Your task to perform on an android device: turn vacation reply on in the gmail app Image 0: 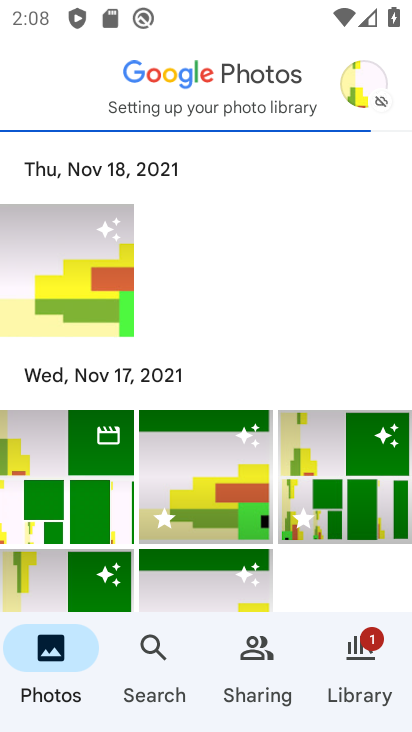
Step 0: press home button
Your task to perform on an android device: turn vacation reply on in the gmail app Image 1: 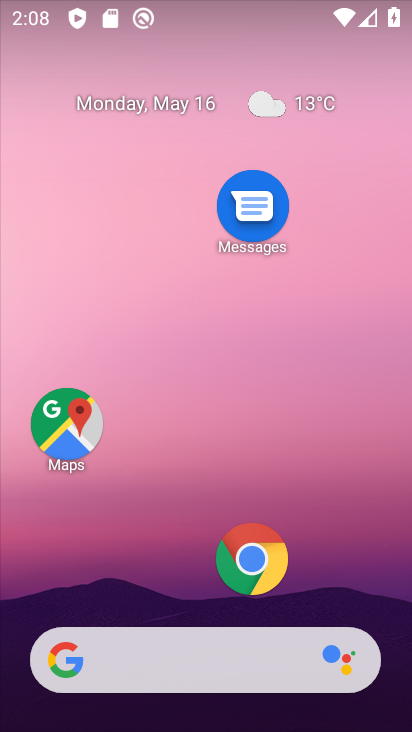
Step 1: drag from (157, 531) to (157, 128)
Your task to perform on an android device: turn vacation reply on in the gmail app Image 2: 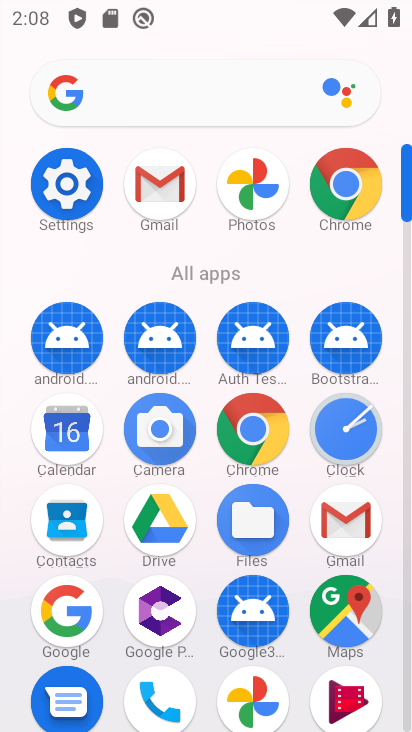
Step 2: click (154, 185)
Your task to perform on an android device: turn vacation reply on in the gmail app Image 3: 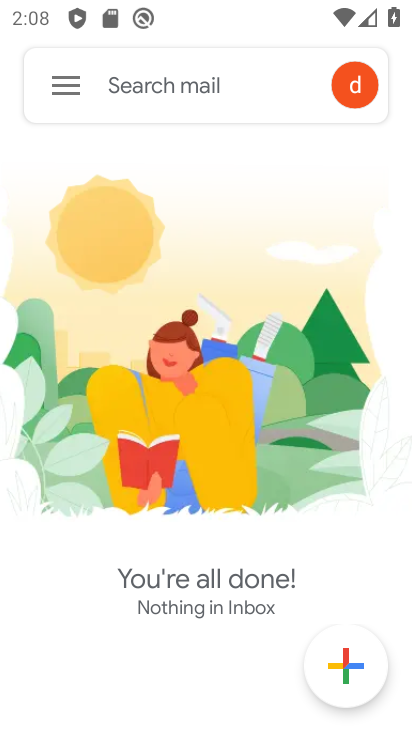
Step 3: click (68, 81)
Your task to perform on an android device: turn vacation reply on in the gmail app Image 4: 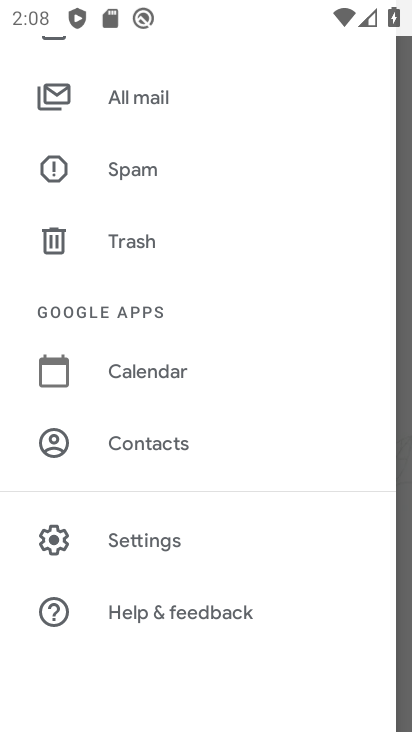
Step 4: click (162, 533)
Your task to perform on an android device: turn vacation reply on in the gmail app Image 5: 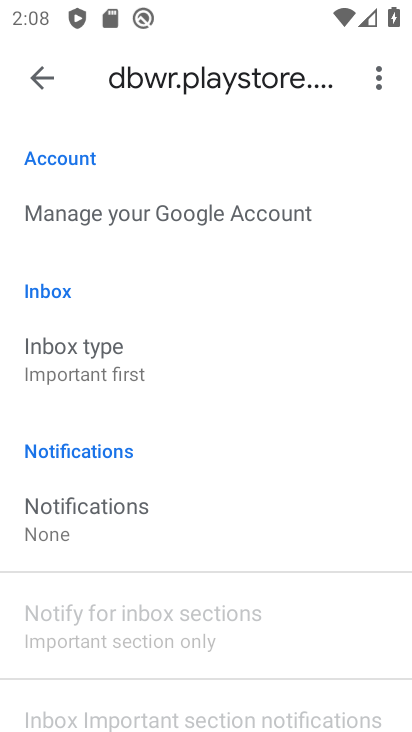
Step 5: drag from (119, 544) to (205, 170)
Your task to perform on an android device: turn vacation reply on in the gmail app Image 6: 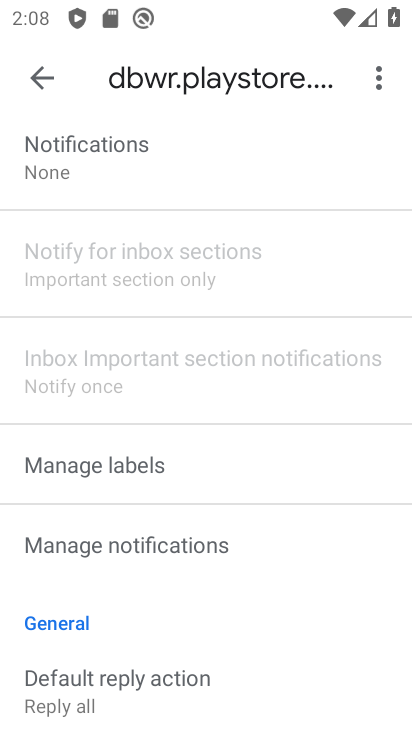
Step 6: drag from (132, 592) to (154, 229)
Your task to perform on an android device: turn vacation reply on in the gmail app Image 7: 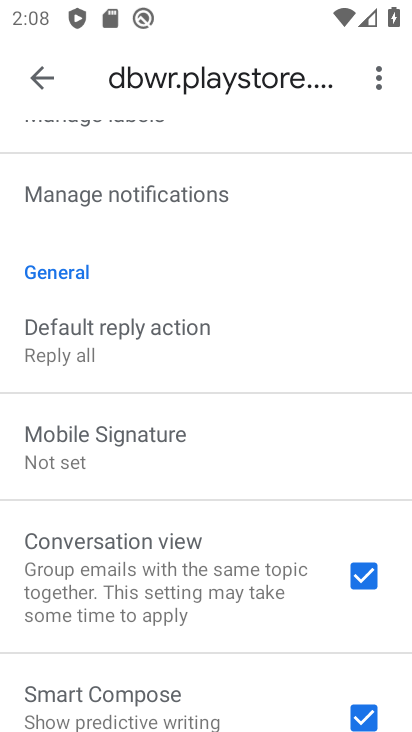
Step 7: drag from (122, 522) to (147, 224)
Your task to perform on an android device: turn vacation reply on in the gmail app Image 8: 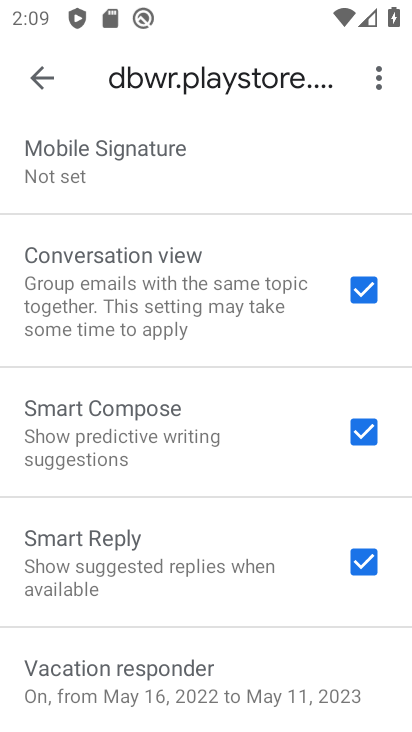
Step 8: click (172, 684)
Your task to perform on an android device: turn vacation reply on in the gmail app Image 9: 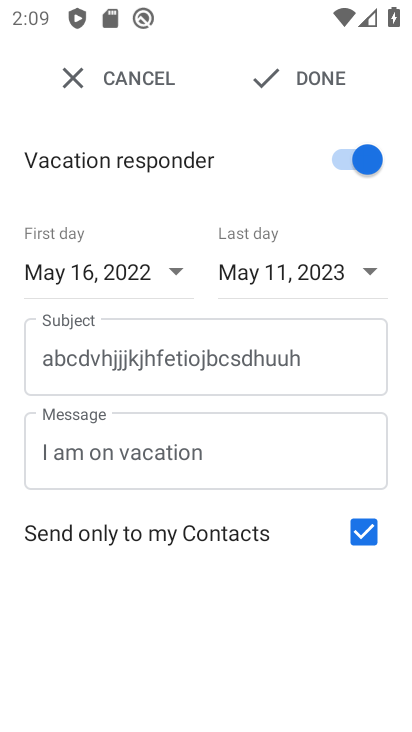
Step 9: task complete